Your task to perform on an android device: delete the emails in spam in the gmail app Image 0: 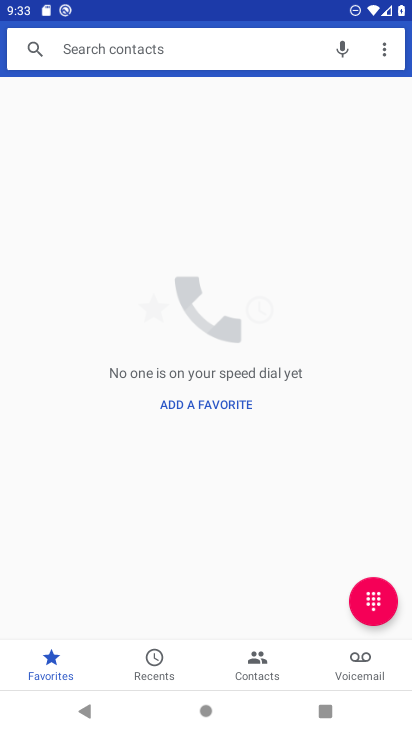
Step 0: press home button
Your task to perform on an android device: delete the emails in spam in the gmail app Image 1: 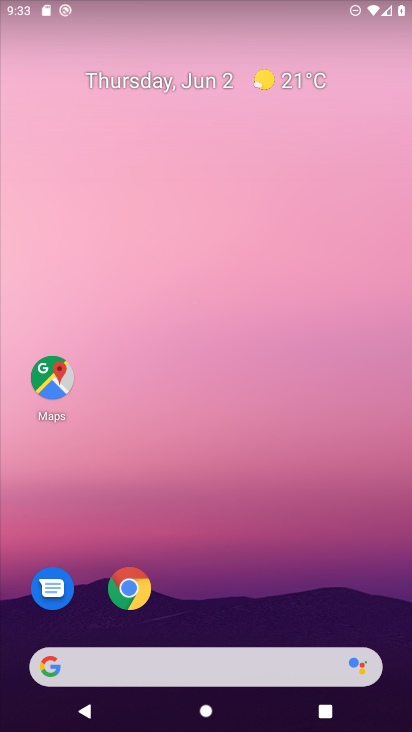
Step 1: drag from (230, 604) to (313, 136)
Your task to perform on an android device: delete the emails in spam in the gmail app Image 2: 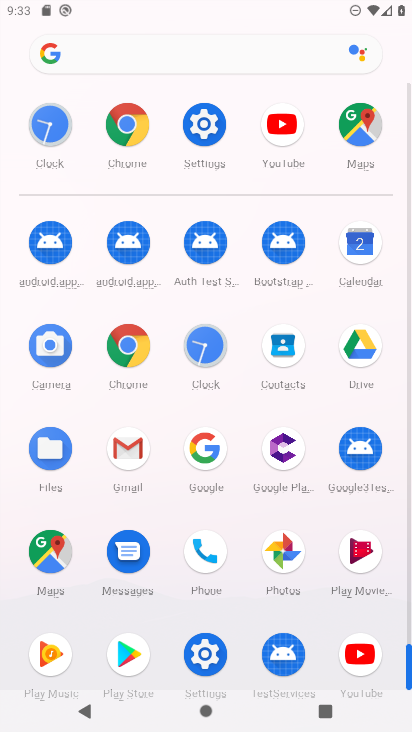
Step 2: click (126, 455)
Your task to perform on an android device: delete the emails in spam in the gmail app Image 3: 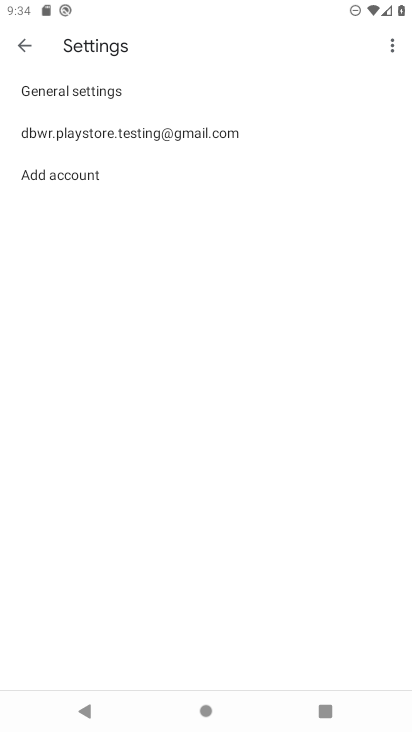
Step 3: click (26, 36)
Your task to perform on an android device: delete the emails in spam in the gmail app Image 4: 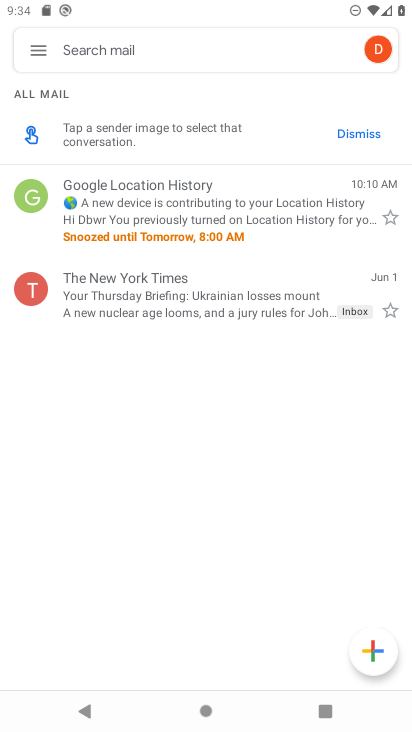
Step 4: click (44, 59)
Your task to perform on an android device: delete the emails in spam in the gmail app Image 5: 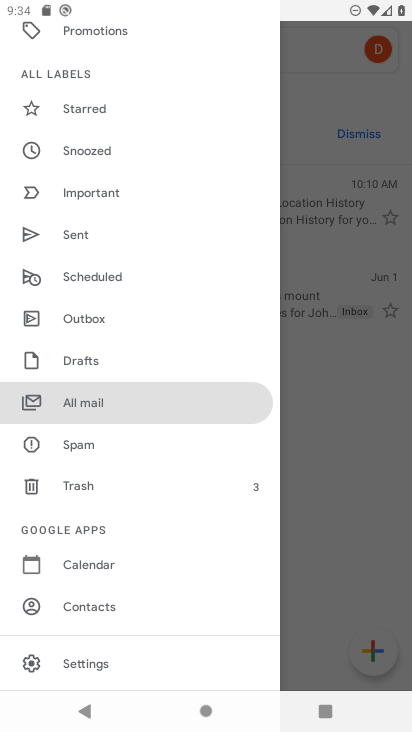
Step 5: click (92, 401)
Your task to perform on an android device: delete the emails in spam in the gmail app Image 6: 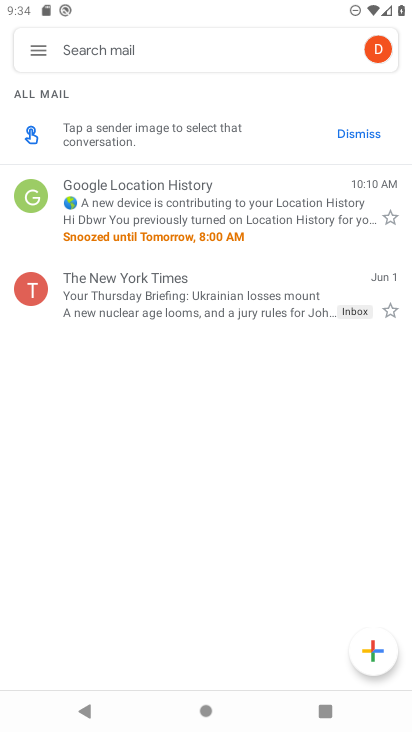
Step 6: click (41, 44)
Your task to perform on an android device: delete the emails in spam in the gmail app Image 7: 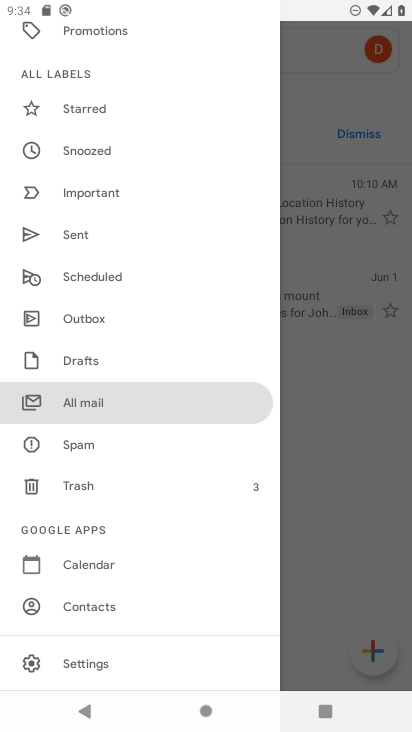
Step 7: drag from (107, 502) to (133, 340)
Your task to perform on an android device: delete the emails in spam in the gmail app Image 8: 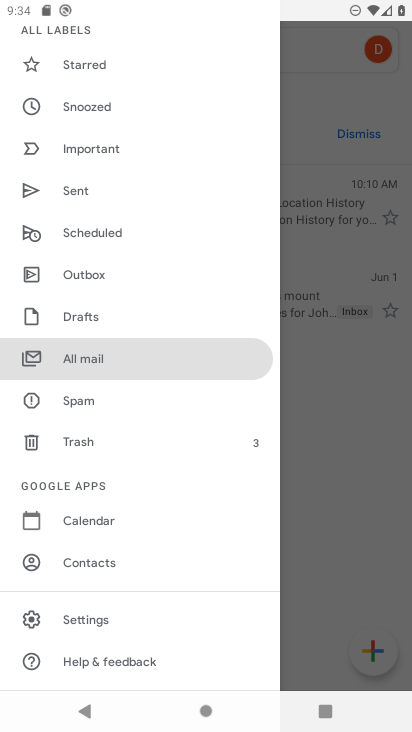
Step 8: click (108, 412)
Your task to perform on an android device: delete the emails in spam in the gmail app Image 9: 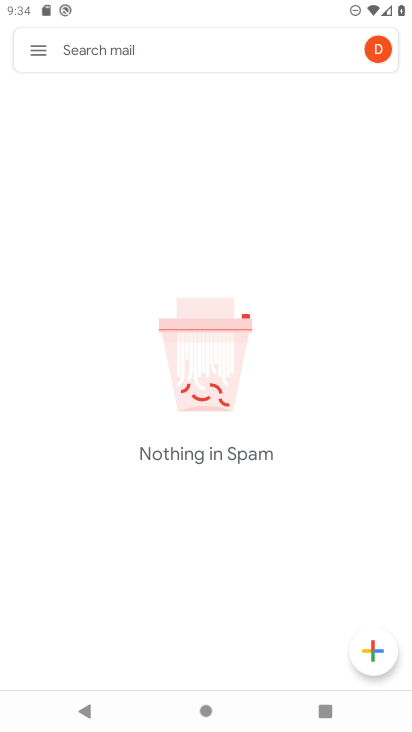
Step 9: task complete